Your task to perform on an android device: Open the calendar and show me this week's events? Image 0: 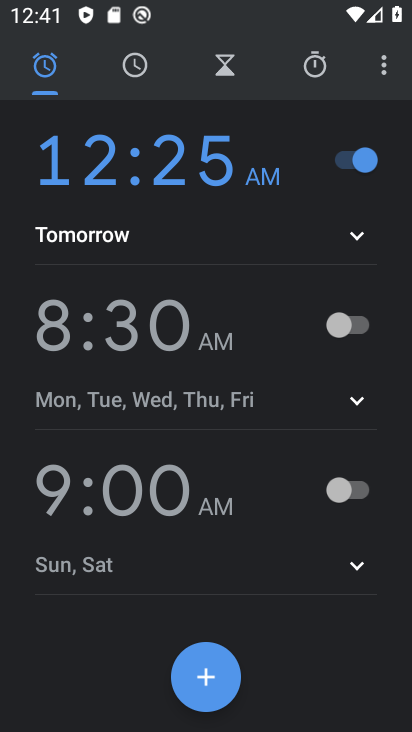
Step 0: press home button
Your task to perform on an android device: Open the calendar and show me this week's events? Image 1: 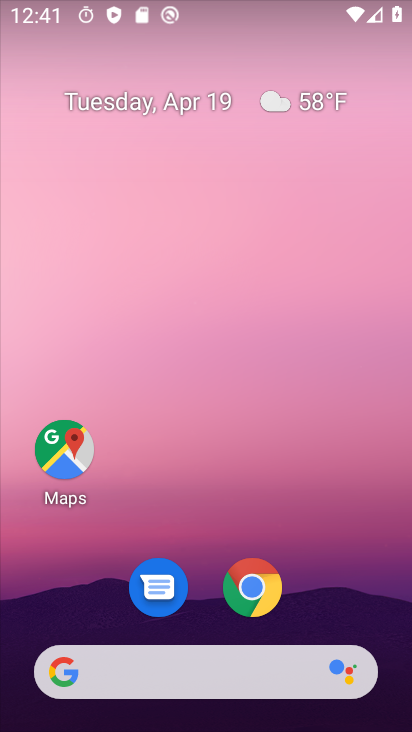
Step 1: drag from (364, 578) to (339, 125)
Your task to perform on an android device: Open the calendar and show me this week's events? Image 2: 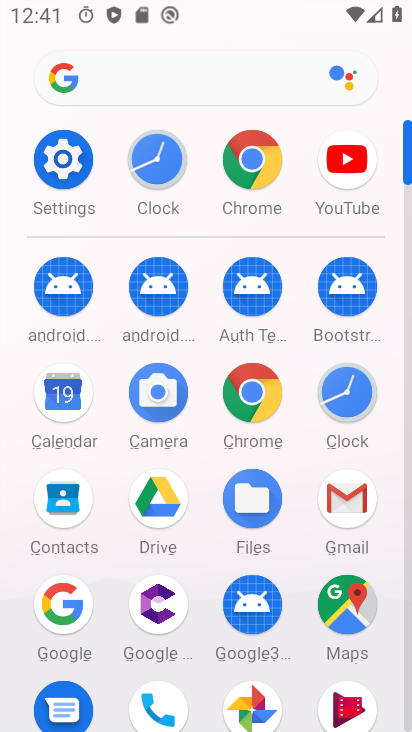
Step 2: click (54, 406)
Your task to perform on an android device: Open the calendar and show me this week's events? Image 3: 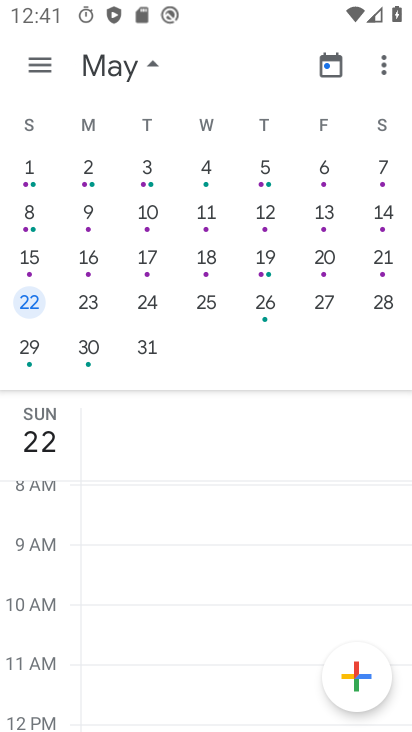
Step 3: click (105, 72)
Your task to perform on an android device: Open the calendar and show me this week's events? Image 4: 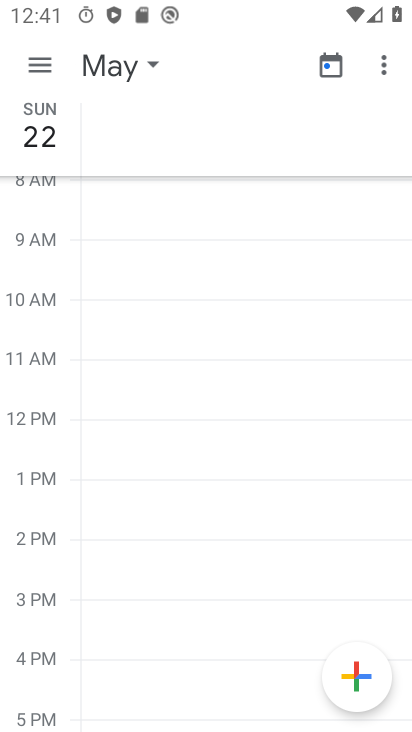
Step 4: click (105, 73)
Your task to perform on an android device: Open the calendar and show me this week's events? Image 5: 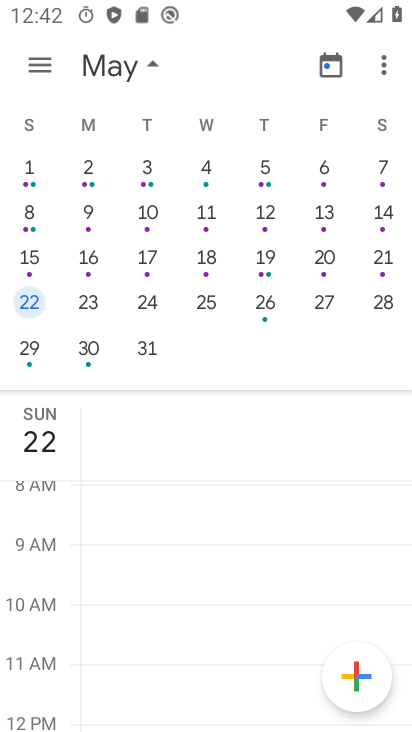
Step 5: drag from (47, 145) to (409, 197)
Your task to perform on an android device: Open the calendar and show me this week's events? Image 6: 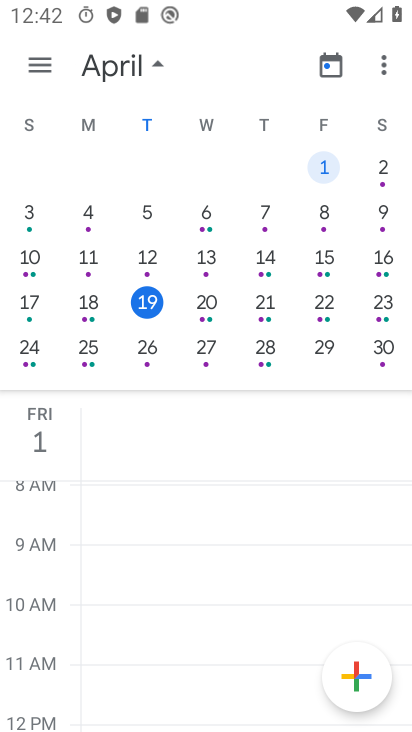
Step 6: click (209, 307)
Your task to perform on an android device: Open the calendar and show me this week's events? Image 7: 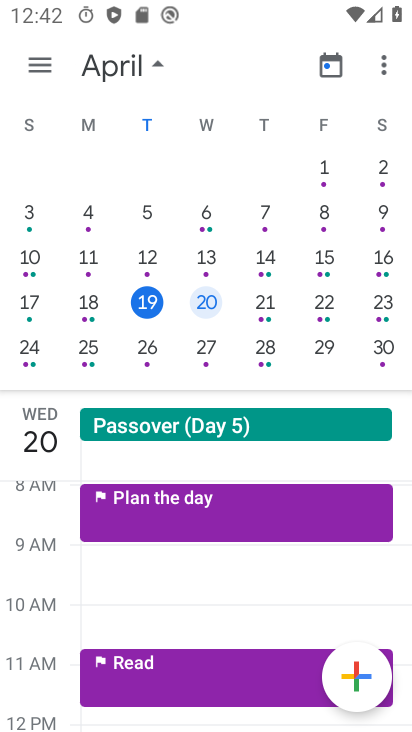
Step 7: task complete